Your task to perform on an android device: Open settings Image 0: 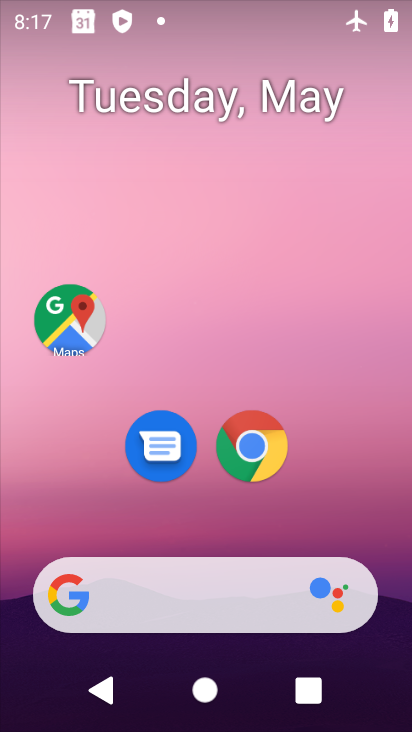
Step 0: drag from (359, 546) to (346, 4)
Your task to perform on an android device: Open settings Image 1: 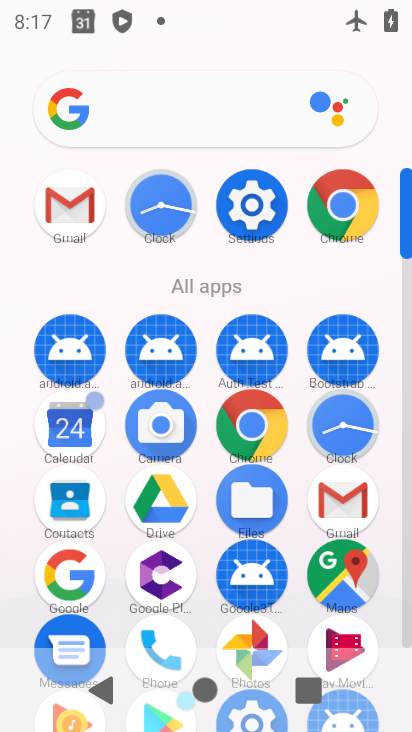
Step 1: click (253, 205)
Your task to perform on an android device: Open settings Image 2: 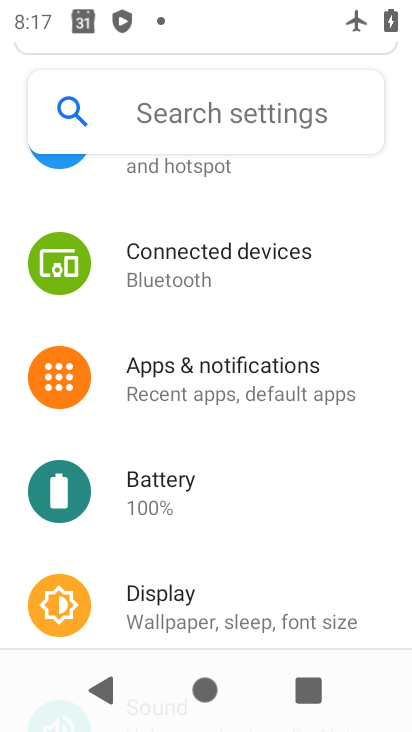
Step 2: task complete